Your task to perform on an android device: open a bookmark in the chrome app Image 0: 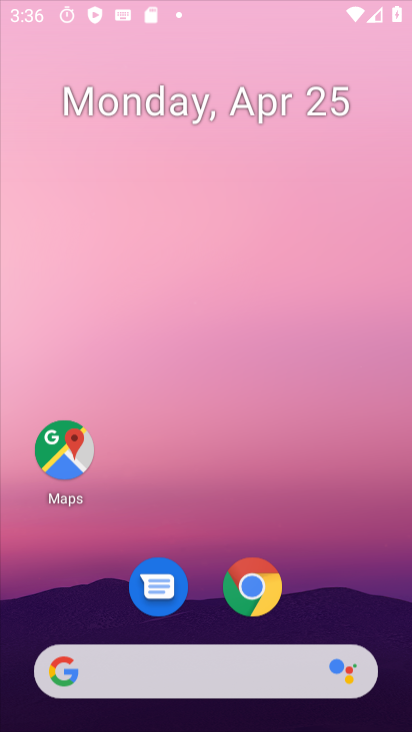
Step 0: click (290, 79)
Your task to perform on an android device: open a bookmark in the chrome app Image 1: 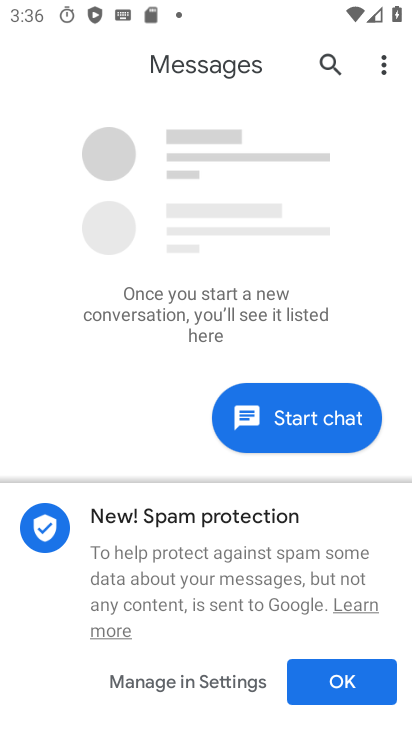
Step 1: press home button
Your task to perform on an android device: open a bookmark in the chrome app Image 2: 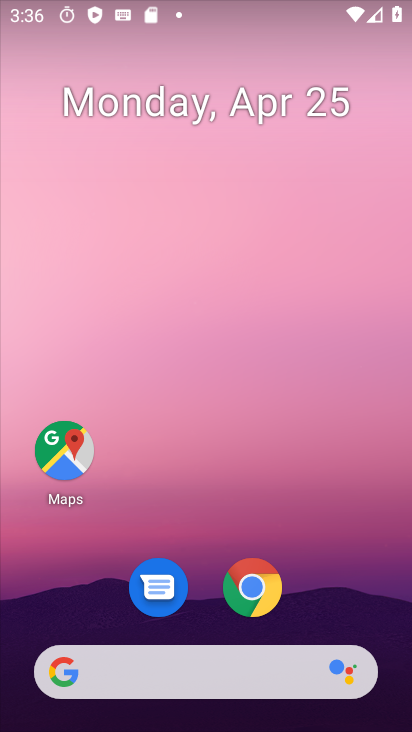
Step 2: click (257, 583)
Your task to perform on an android device: open a bookmark in the chrome app Image 3: 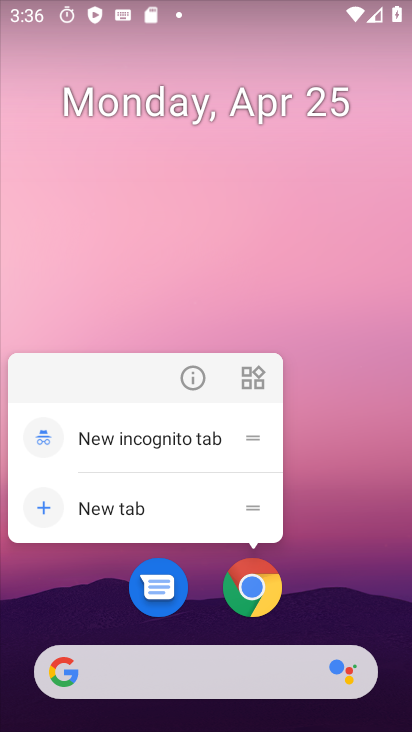
Step 3: drag from (308, 573) to (338, 90)
Your task to perform on an android device: open a bookmark in the chrome app Image 4: 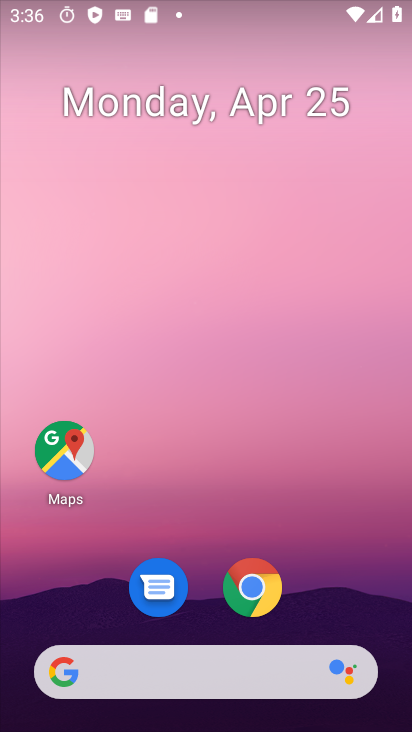
Step 4: drag from (317, 298) to (330, 52)
Your task to perform on an android device: open a bookmark in the chrome app Image 5: 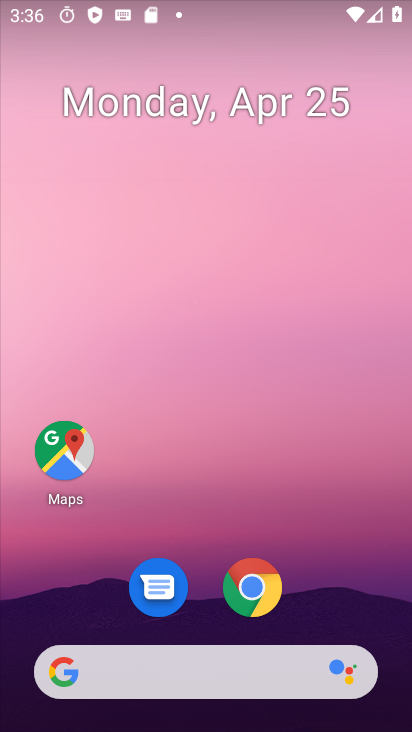
Step 5: drag from (325, 570) to (342, 105)
Your task to perform on an android device: open a bookmark in the chrome app Image 6: 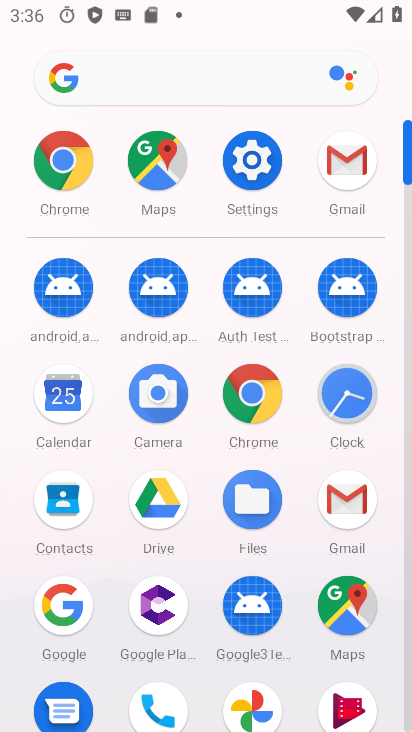
Step 6: click (251, 401)
Your task to perform on an android device: open a bookmark in the chrome app Image 7: 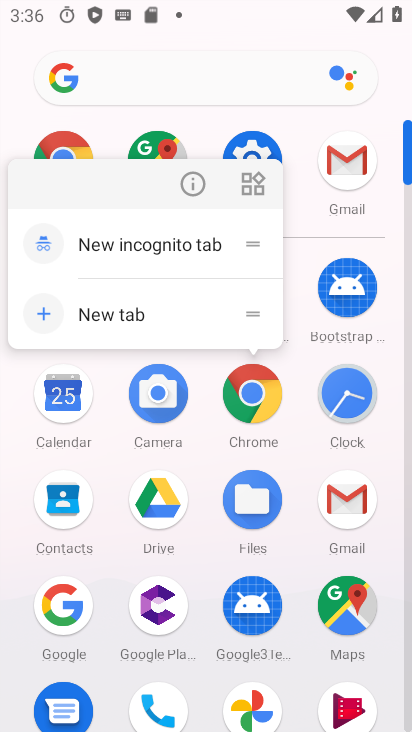
Step 7: click (253, 399)
Your task to perform on an android device: open a bookmark in the chrome app Image 8: 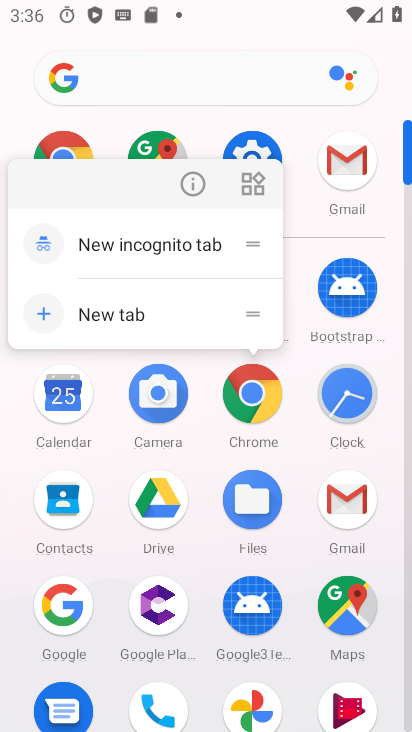
Step 8: click (270, 403)
Your task to perform on an android device: open a bookmark in the chrome app Image 9: 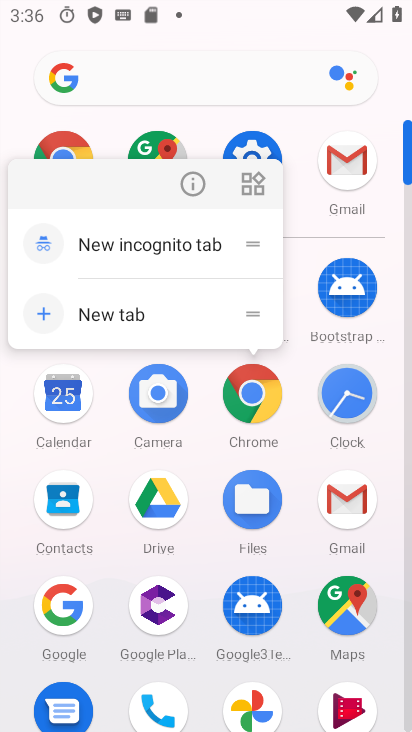
Step 9: click (379, 347)
Your task to perform on an android device: open a bookmark in the chrome app Image 10: 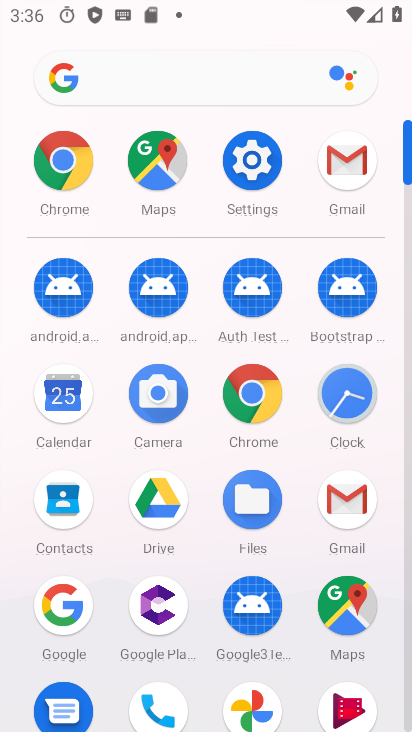
Step 10: drag from (299, 468) to (333, 237)
Your task to perform on an android device: open a bookmark in the chrome app Image 11: 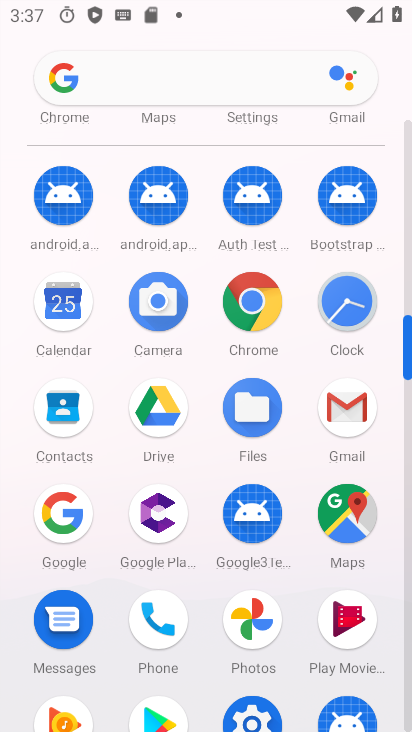
Step 11: click (268, 308)
Your task to perform on an android device: open a bookmark in the chrome app Image 12: 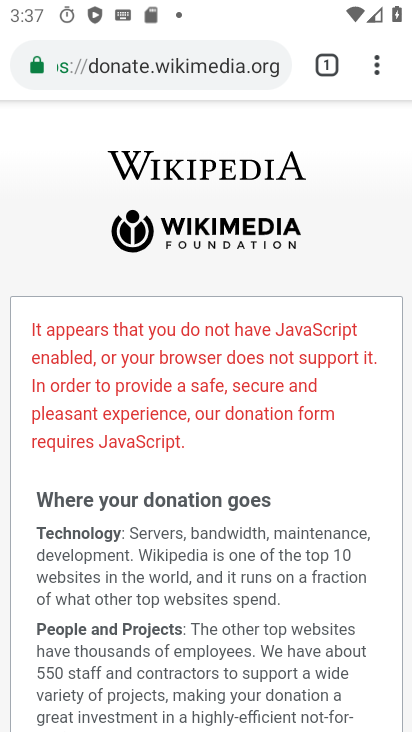
Step 12: drag from (380, 64) to (213, 303)
Your task to perform on an android device: open a bookmark in the chrome app Image 13: 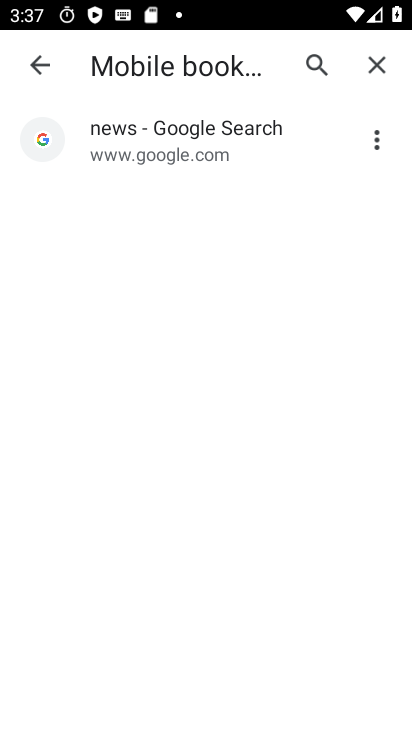
Step 13: click (192, 129)
Your task to perform on an android device: open a bookmark in the chrome app Image 14: 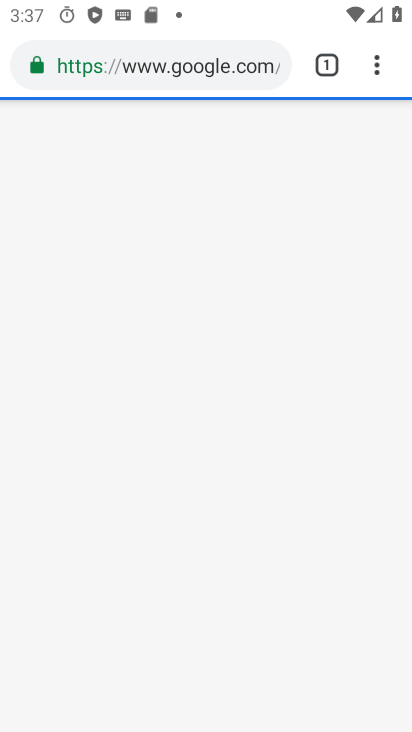
Step 14: click (197, 141)
Your task to perform on an android device: open a bookmark in the chrome app Image 15: 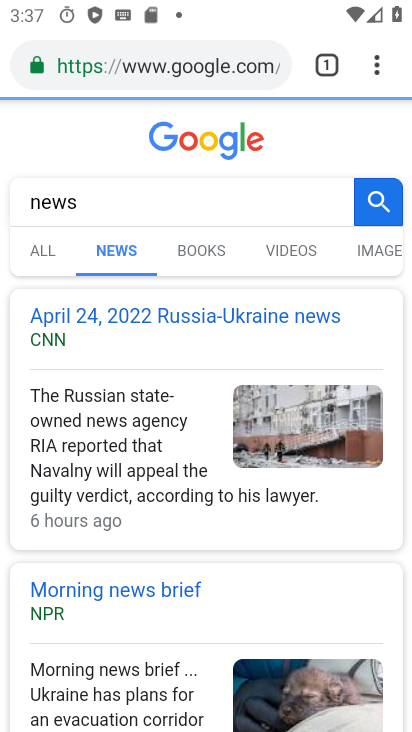
Step 15: task complete